Your task to perform on an android device: read, delete, or share a saved page in the chrome app Image 0: 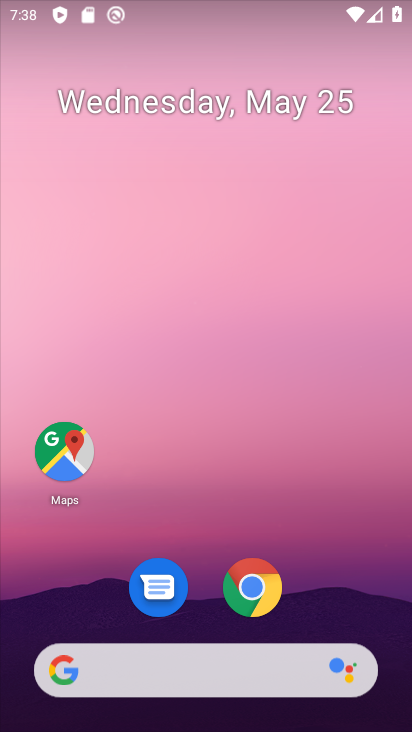
Step 0: click (250, 586)
Your task to perform on an android device: read, delete, or share a saved page in the chrome app Image 1: 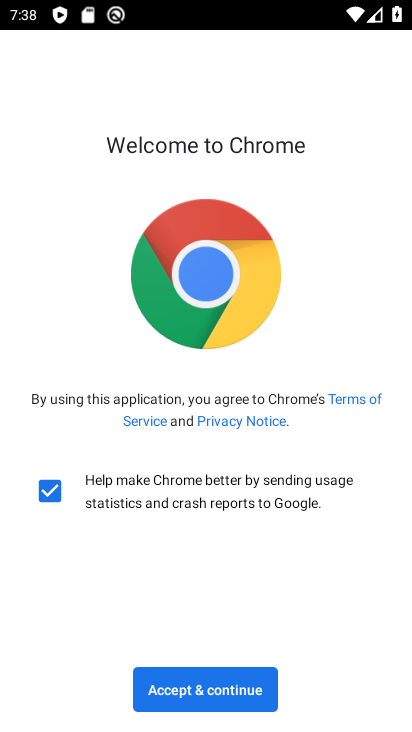
Step 1: click (222, 685)
Your task to perform on an android device: read, delete, or share a saved page in the chrome app Image 2: 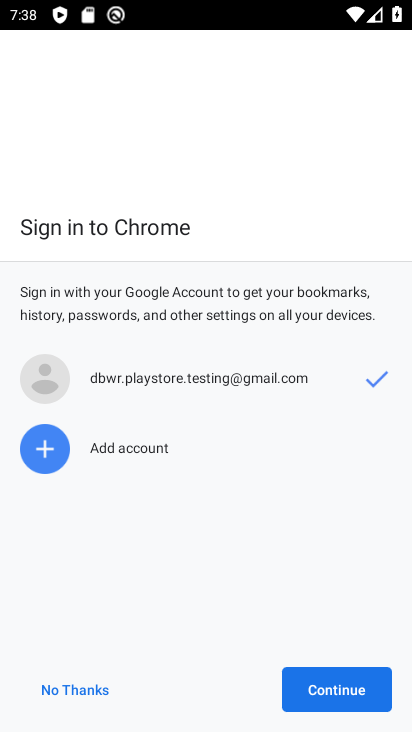
Step 2: click (306, 697)
Your task to perform on an android device: read, delete, or share a saved page in the chrome app Image 3: 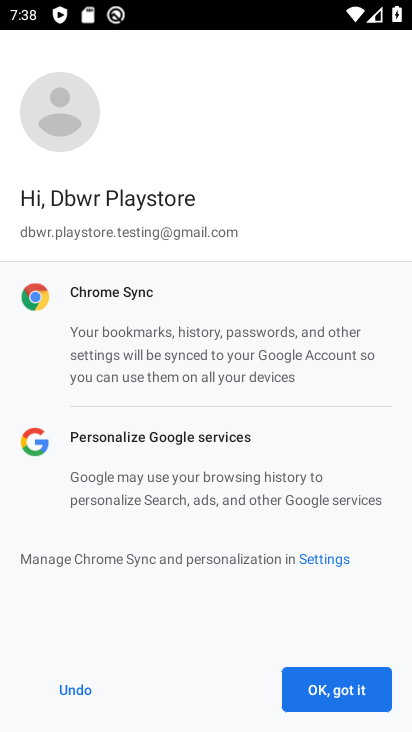
Step 3: click (306, 697)
Your task to perform on an android device: read, delete, or share a saved page in the chrome app Image 4: 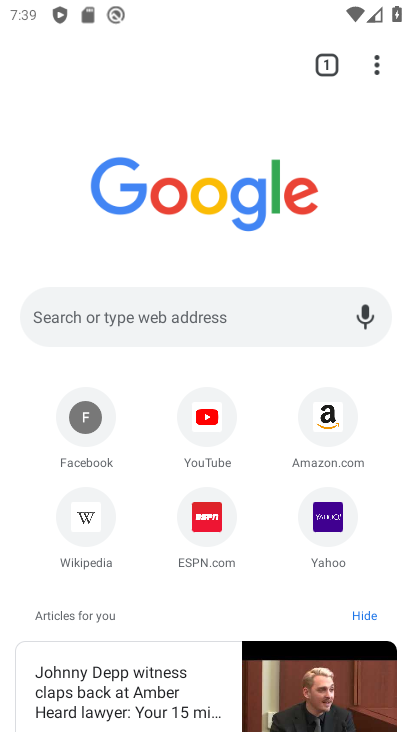
Step 4: click (83, 502)
Your task to perform on an android device: read, delete, or share a saved page in the chrome app Image 5: 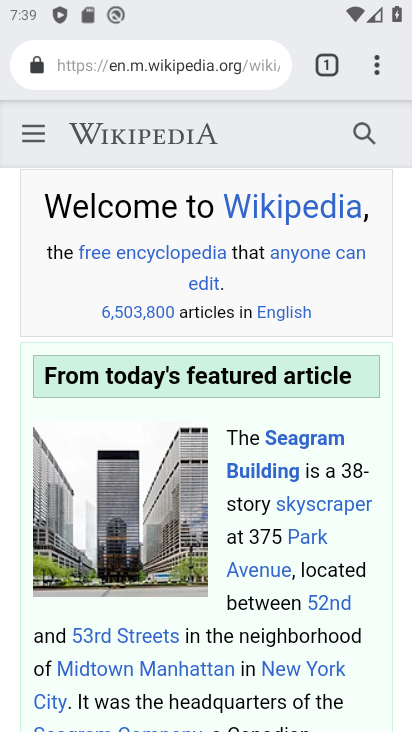
Step 5: drag from (253, 648) to (267, 277)
Your task to perform on an android device: read, delete, or share a saved page in the chrome app Image 6: 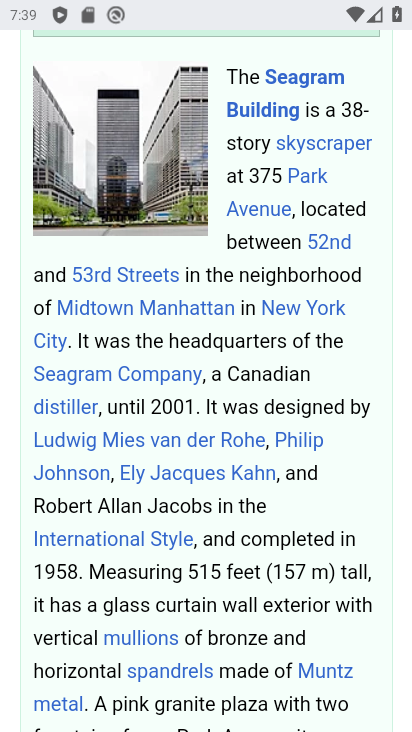
Step 6: drag from (248, 578) to (260, 297)
Your task to perform on an android device: read, delete, or share a saved page in the chrome app Image 7: 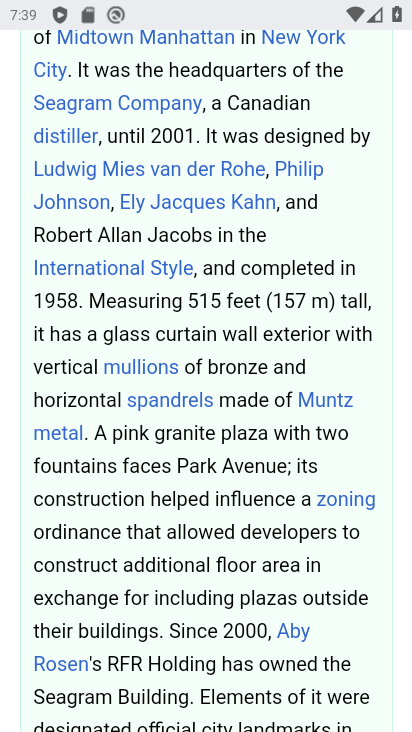
Step 7: drag from (231, 651) to (252, 411)
Your task to perform on an android device: read, delete, or share a saved page in the chrome app Image 8: 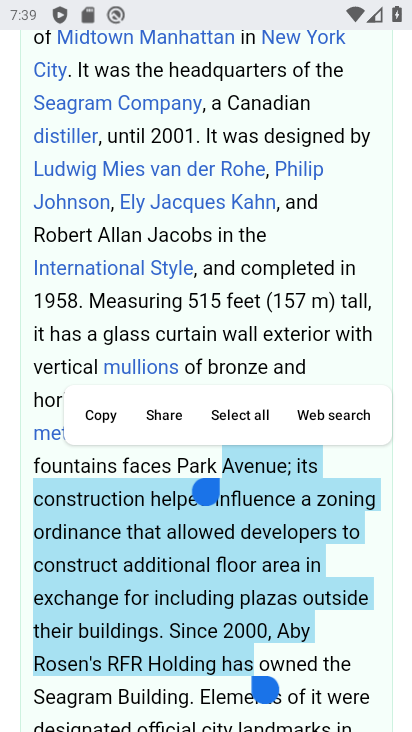
Step 8: click (349, 451)
Your task to perform on an android device: read, delete, or share a saved page in the chrome app Image 9: 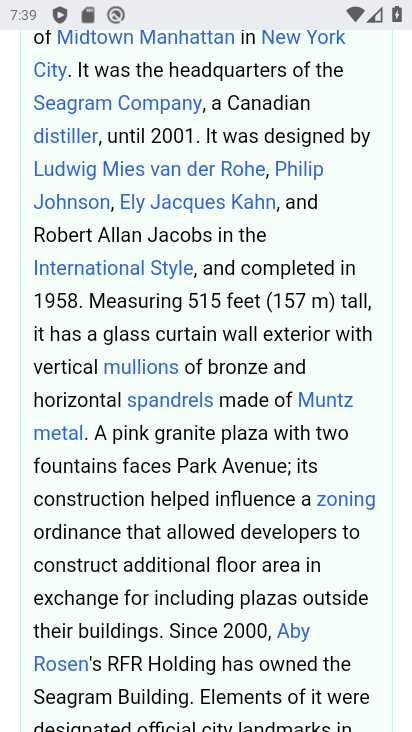
Step 9: drag from (168, 633) to (186, 381)
Your task to perform on an android device: read, delete, or share a saved page in the chrome app Image 10: 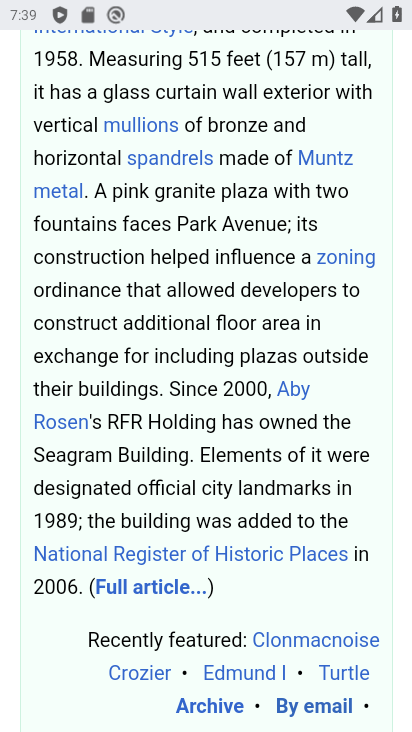
Step 10: drag from (155, 220) to (120, 595)
Your task to perform on an android device: read, delete, or share a saved page in the chrome app Image 11: 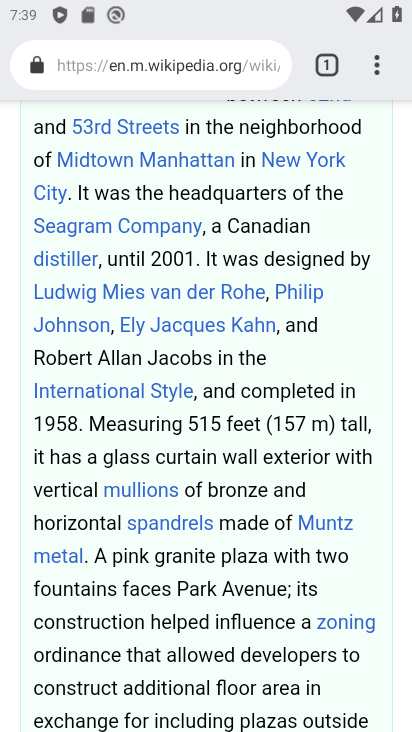
Step 11: drag from (187, 244) to (123, 590)
Your task to perform on an android device: read, delete, or share a saved page in the chrome app Image 12: 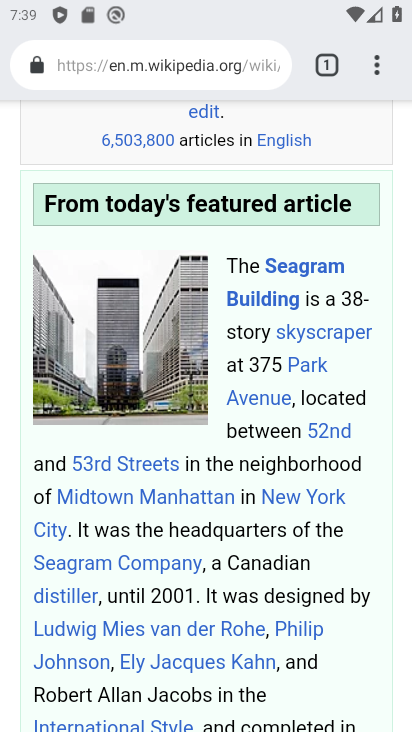
Step 12: drag from (375, 62) to (165, 58)
Your task to perform on an android device: read, delete, or share a saved page in the chrome app Image 13: 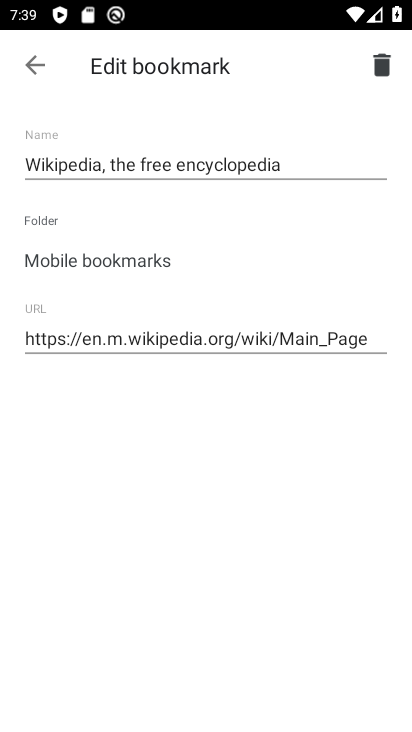
Step 13: click (378, 62)
Your task to perform on an android device: read, delete, or share a saved page in the chrome app Image 14: 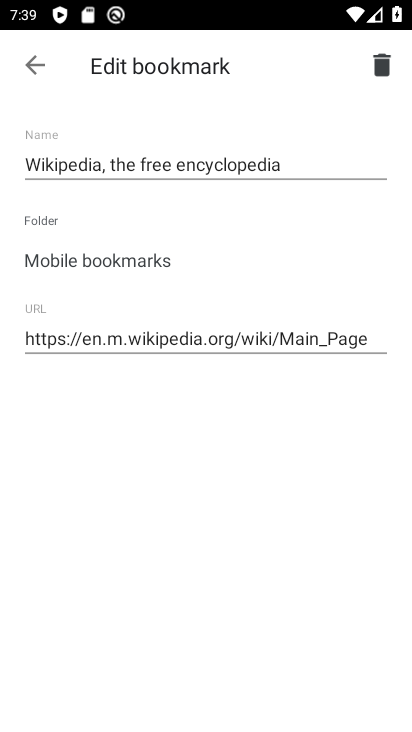
Step 14: click (385, 66)
Your task to perform on an android device: read, delete, or share a saved page in the chrome app Image 15: 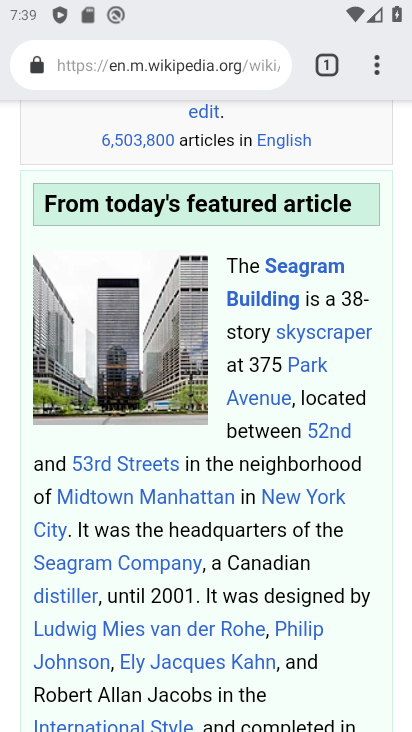
Step 15: task complete